Your task to perform on an android device: refresh tabs in the chrome app Image 0: 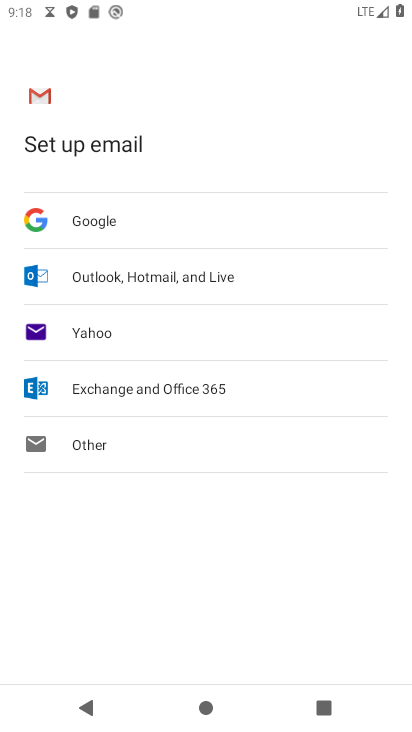
Step 0: press home button
Your task to perform on an android device: refresh tabs in the chrome app Image 1: 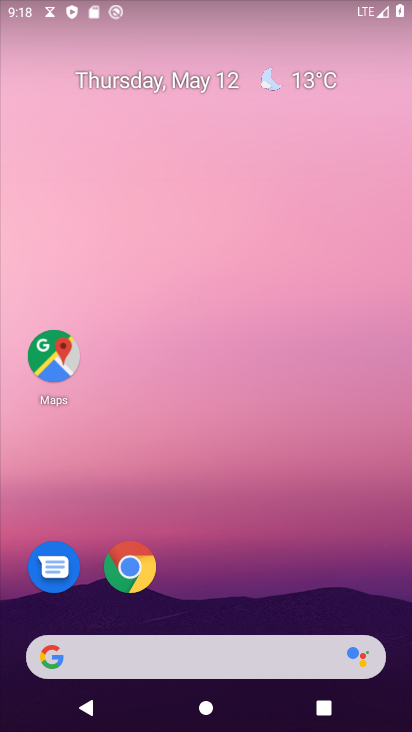
Step 1: click (113, 566)
Your task to perform on an android device: refresh tabs in the chrome app Image 2: 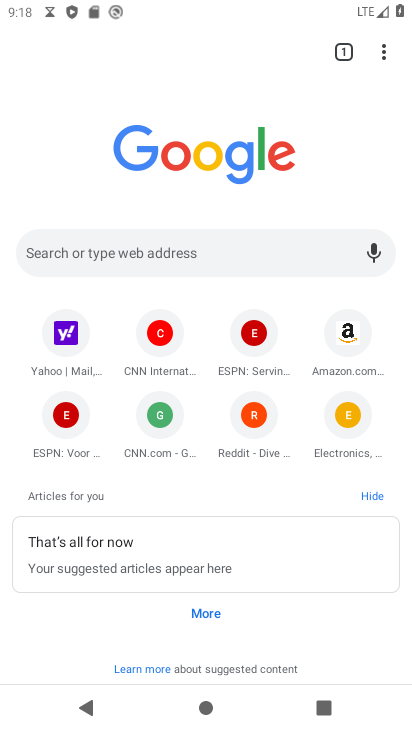
Step 2: click (388, 63)
Your task to perform on an android device: refresh tabs in the chrome app Image 3: 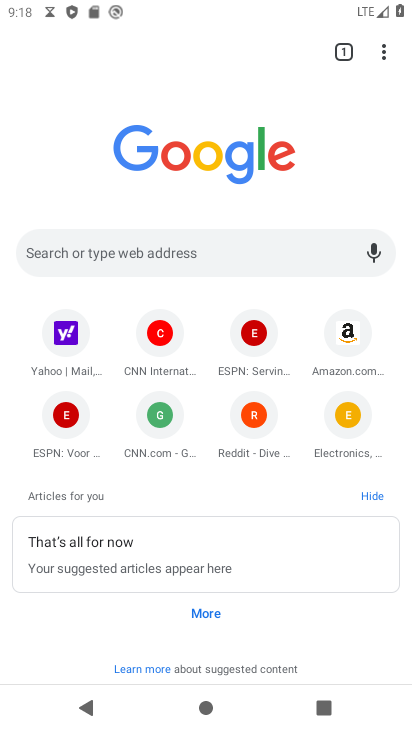
Step 3: click (387, 53)
Your task to perform on an android device: refresh tabs in the chrome app Image 4: 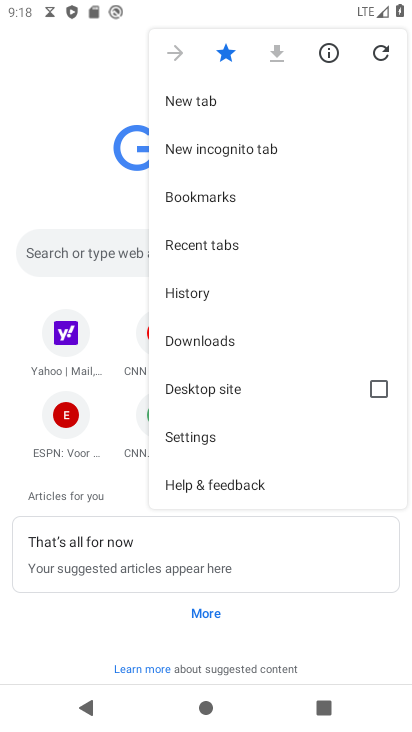
Step 4: click (384, 54)
Your task to perform on an android device: refresh tabs in the chrome app Image 5: 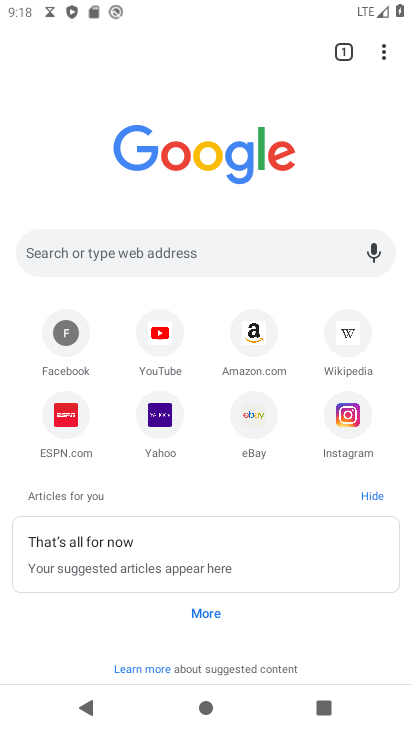
Step 5: task complete